Your task to perform on an android device: toggle priority inbox in the gmail app Image 0: 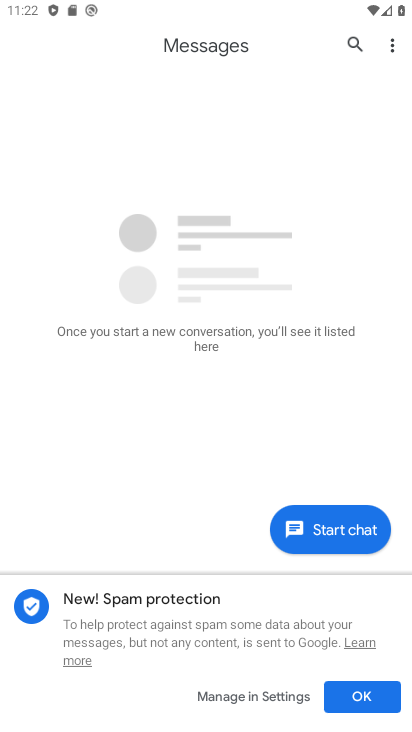
Step 0: press home button
Your task to perform on an android device: toggle priority inbox in the gmail app Image 1: 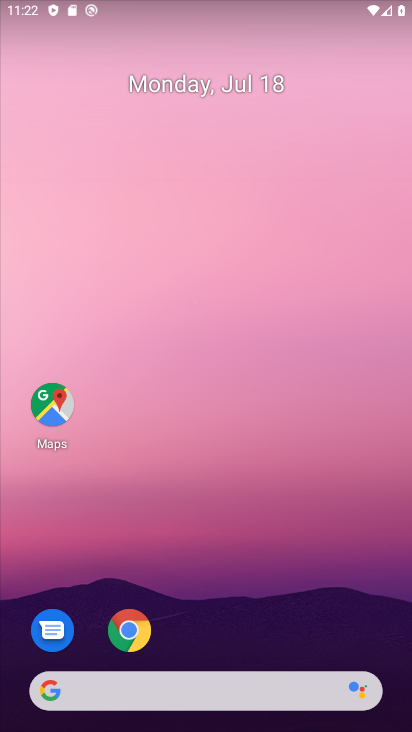
Step 1: drag from (251, 618) to (370, 25)
Your task to perform on an android device: toggle priority inbox in the gmail app Image 2: 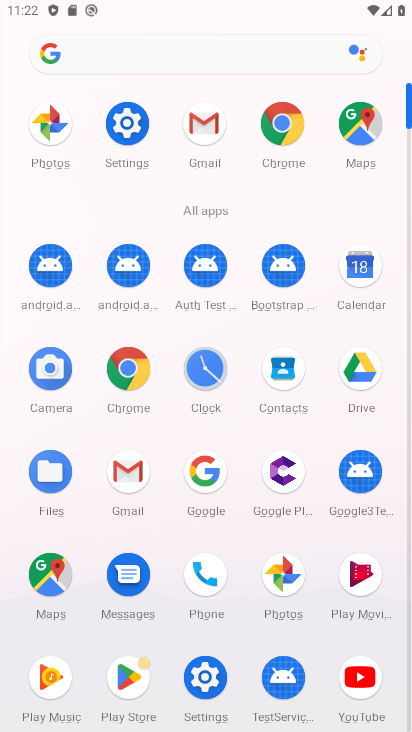
Step 2: click (135, 485)
Your task to perform on an android device: toggle priority inbox in the gmail app Image 3: 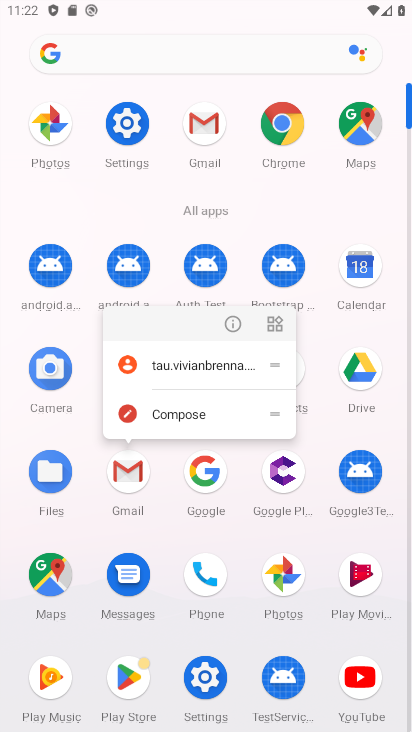
Step 3: click (138, 487)
Your task to perform on an android device: toggle priority inbox in the gmail app Image 4: 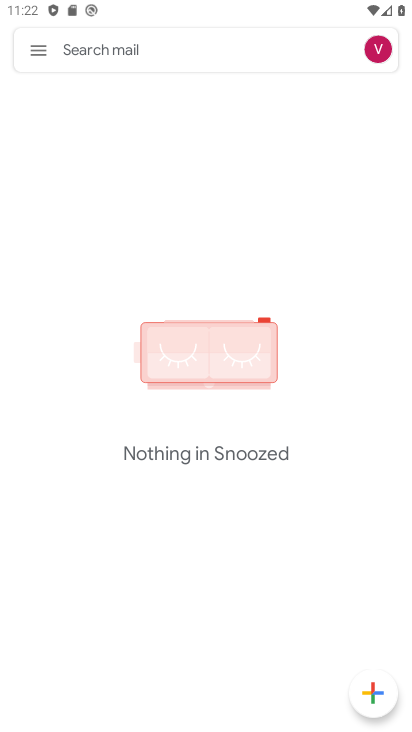
Step 4: click (43, 59)
Your task to perform on an android device: toggle priority inbox in the gmail app Image 5: 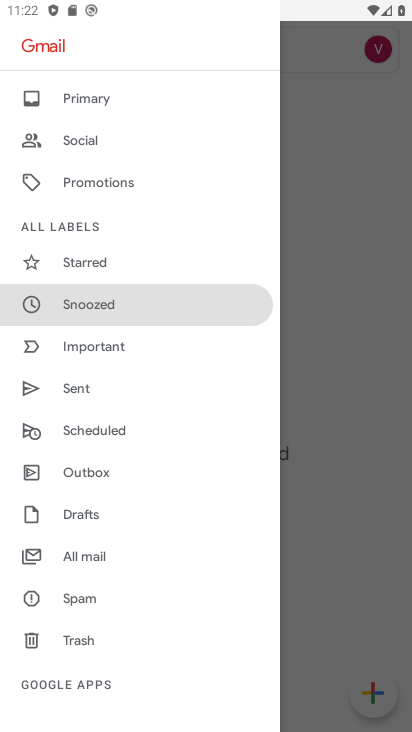
Step 5: drag from (67, 630) to (129, 62)
Your task to perform on an android device: toggle priority inbox in the gmail app Image 6: 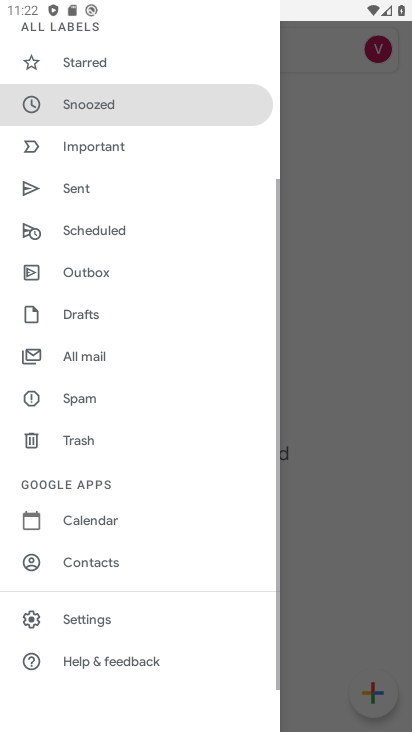
Step 6: click (92, 623)
Your task to perform on an android device: toggle priority inbox in the gmail app Image 7: 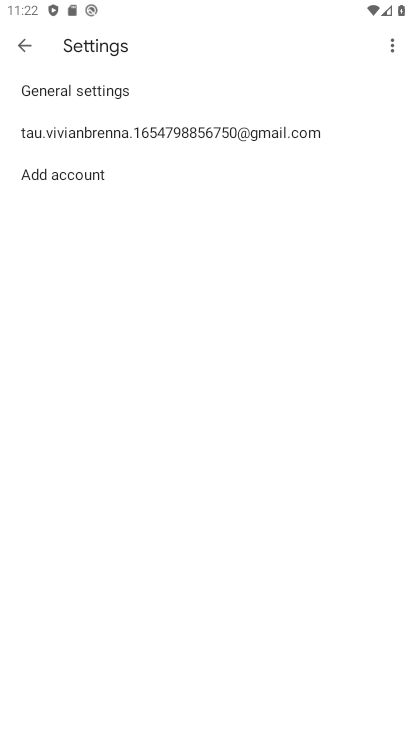
Step 7: click (112, 86)
Your task to perform on an android device: toggle priority inbox in the gmail app Image 8: 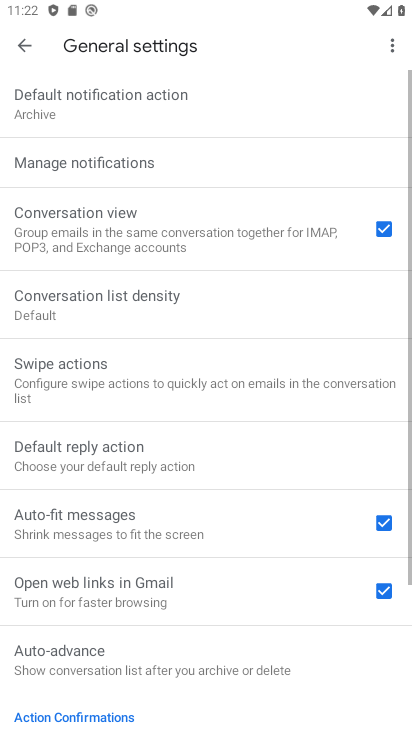
Step 8: click (27, 48)
Your task to perform on an android device: toggle priority inbox in the gmail app Image 9: 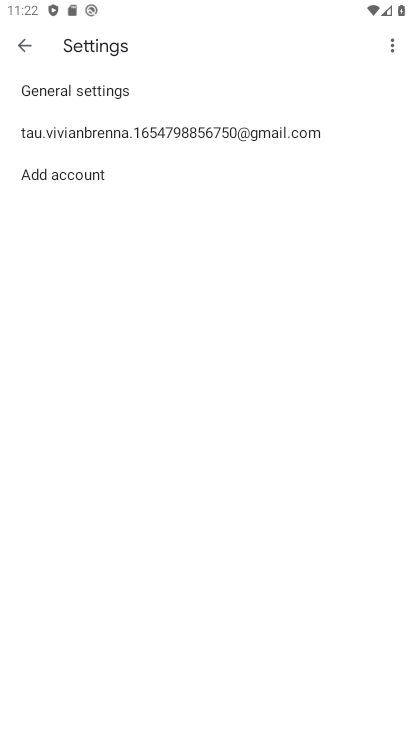
Step 9: click (162, 138)
Your task to perform on an android device: toggle priority inbox in the gmail app Image 10: 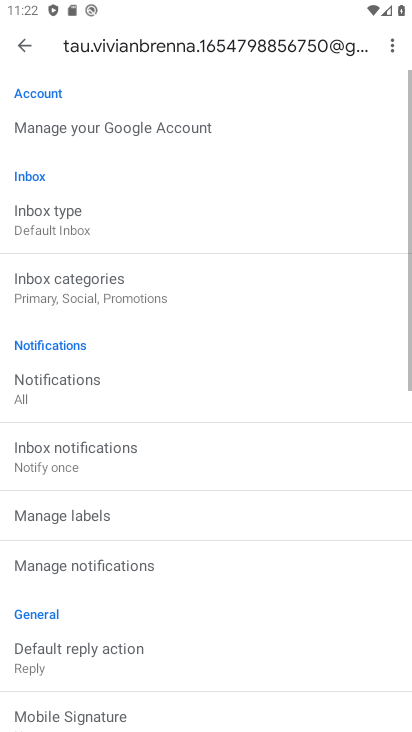
Step 10: click (111, 232)
Your task to perform on an android device: toggle priority inbox in the gmail app Image 11: 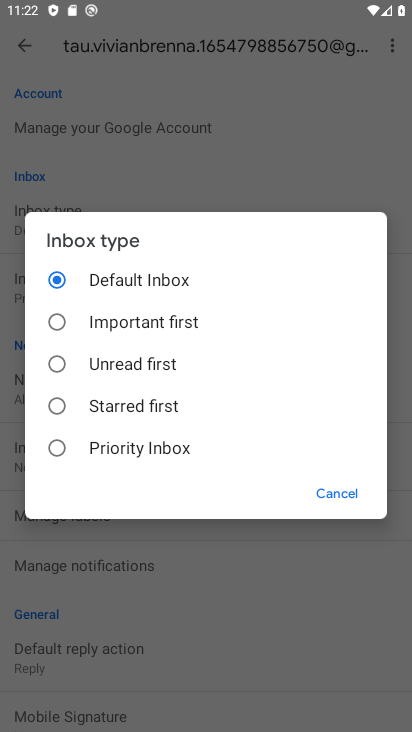
Step 11: click (93, 454)
Your task to perform on an android device: toggle priority inbox in the gmail app Image 12: 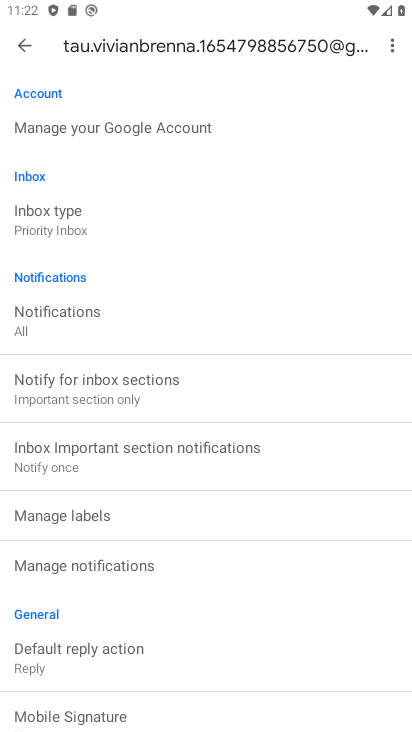
Step 12: task complete